Your task to perform on an android device: turn on javascript in the chrome app Image 0: 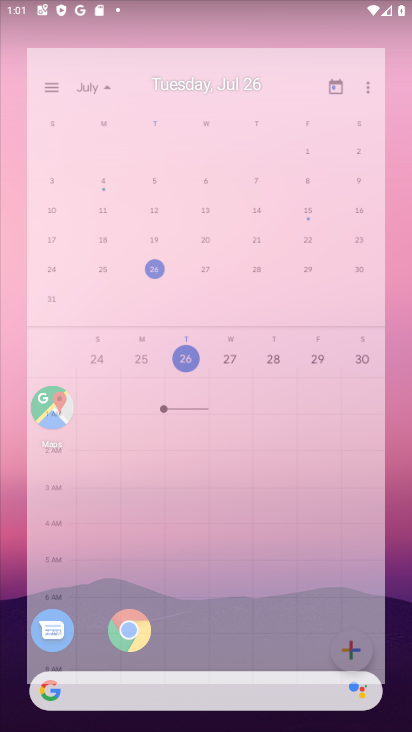
Step 0: press home button
Your task to perform on an android device: turn on javascript in the chrome app Image 1: 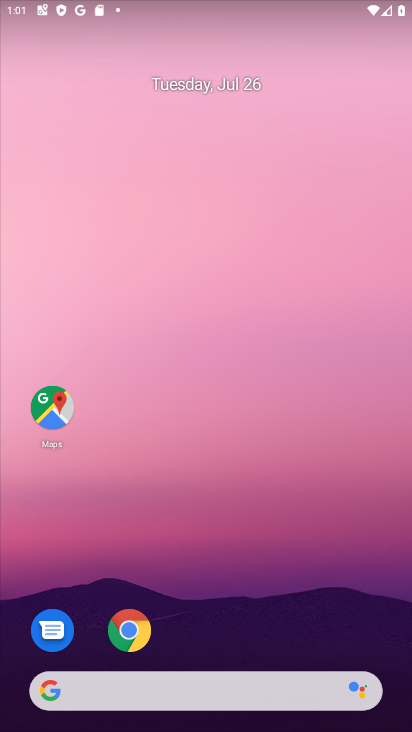
Step 1: click (130, 626)
Your task to perform on an android device: turn on javascript in the chrome app Image 2: 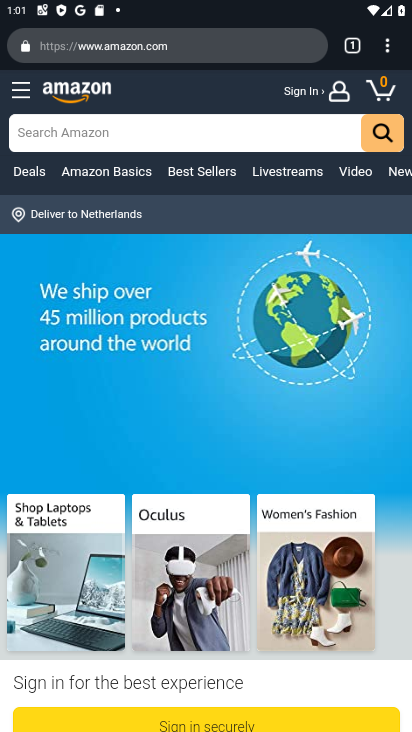
Step 2: click (391, 48)
Your task to perform on an android device: turn on javascript in the chrome app Image 3: 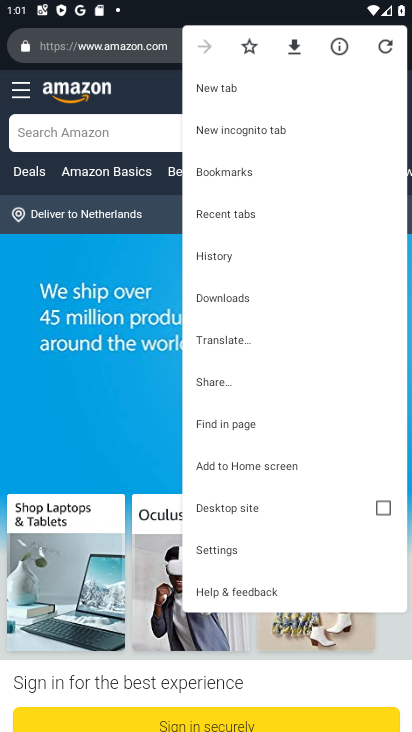
Step 3: click (226, 550)
Your task to perform on an android device: turn on javascript in the chrome app Image 4: 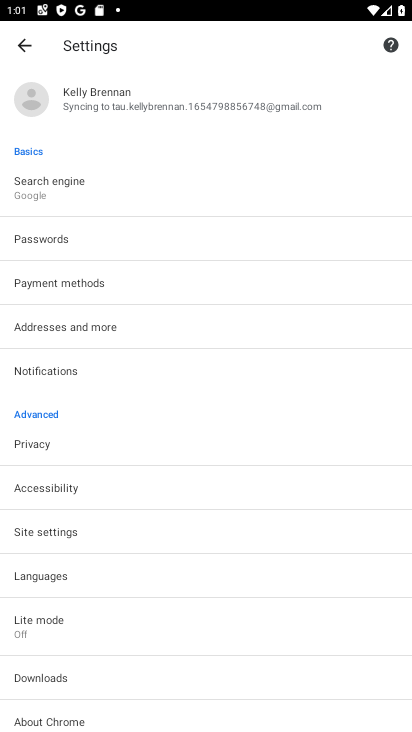
Step 4: click (50, 528)
Your task to perform on an android device: turn on javascript in the chrome app Image 5: 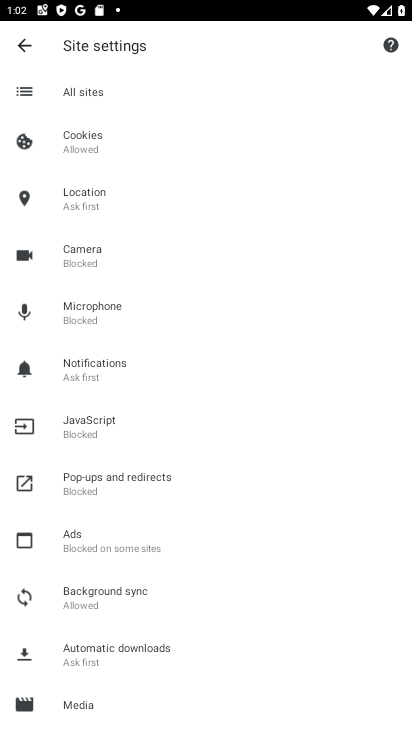
Step 5: click (69, 417)
Your task to perform on an android device: turn on javascript in the chrome app Image 6: 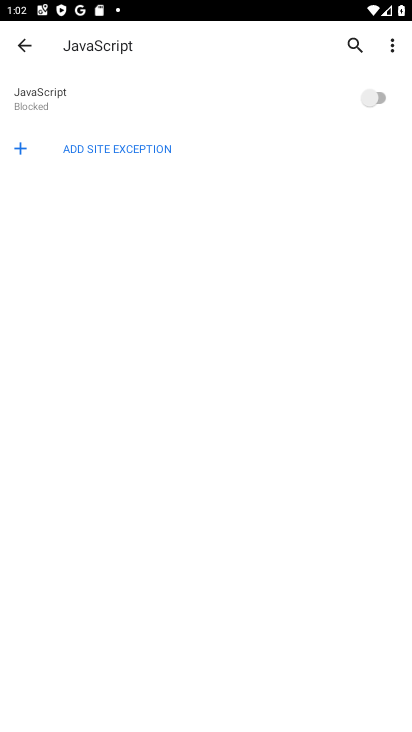
Step 6: click (382, 94)
Your task to perform on an android device: turn on javascript in the chrome app Image 7: 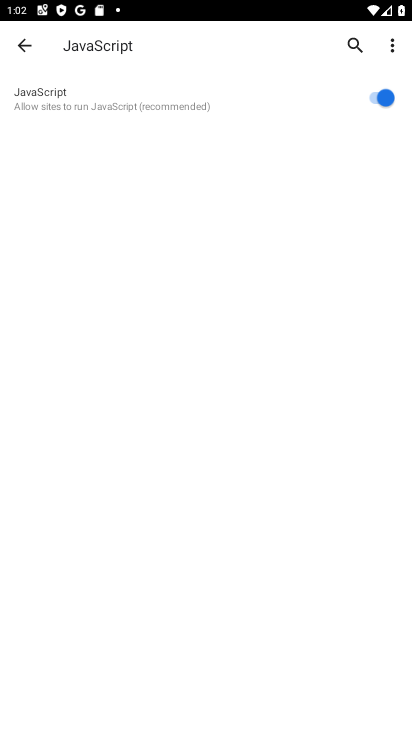
Step 7: task complete